Your task to perform on an android device: Open accessibility settings Image 0: 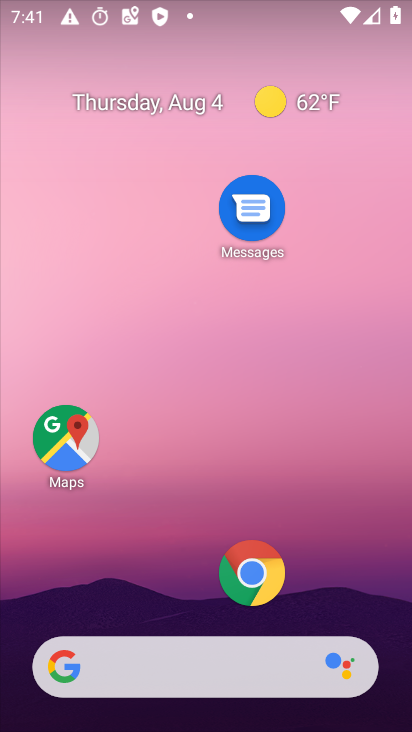
Step 0: drag from (153, 619) to (179, 21)
Your task to perform on an android device: Open accessibility settings Image 1: 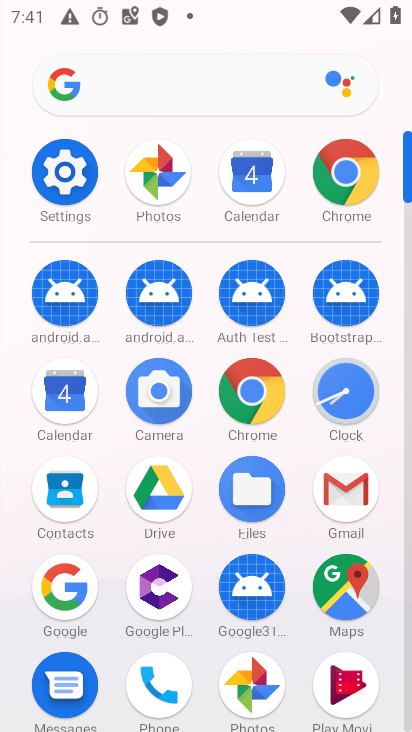
Step 1: click (56, 168)
Your task to perform on an android device: Open accessibility settings Image 2: 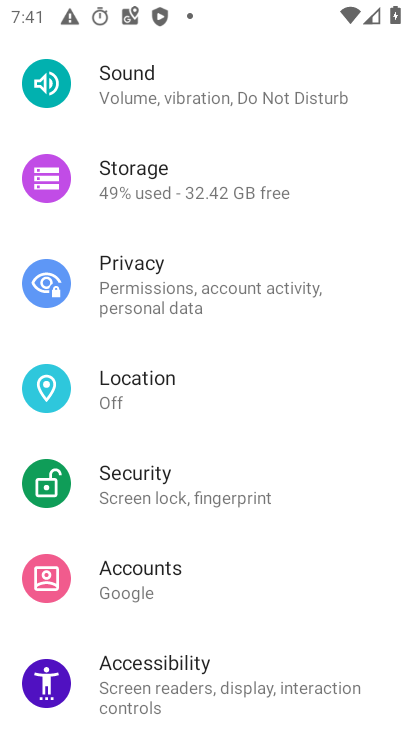
Step 2: click (171, 670)
Your task to perform on an android device: Open accessibility settings Image 3: 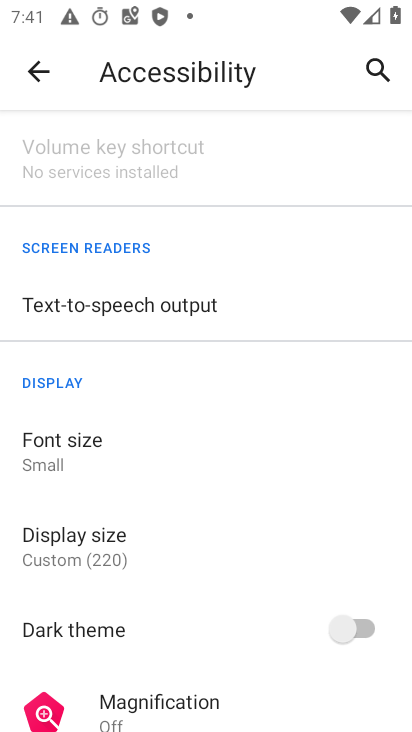
Step 3: task complete